Your task to perform on an android device: Go to Wikipedia Image 0: 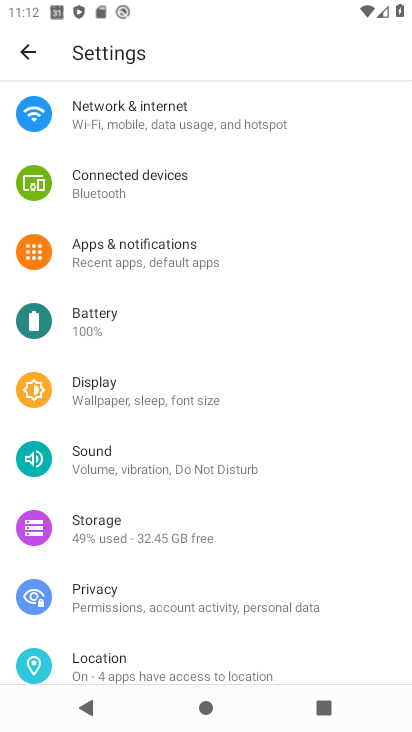
Step 0: press home button
Your task to perform on an android device: Go to Wikipedia Image 1: 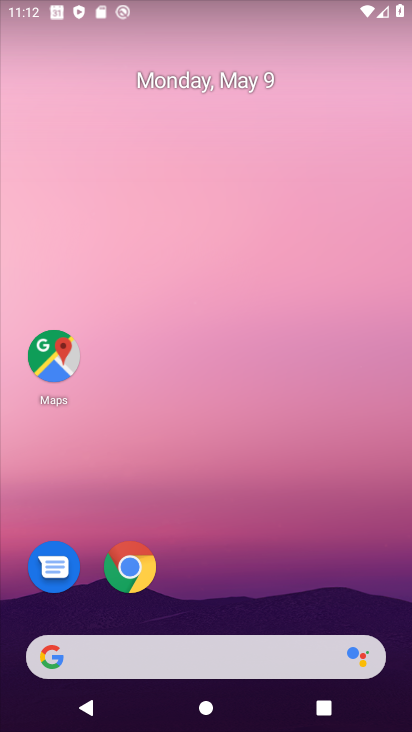
Step 1: click (226, 652)
Your task to perform on an android device: Go to Wikipedia Image 2: 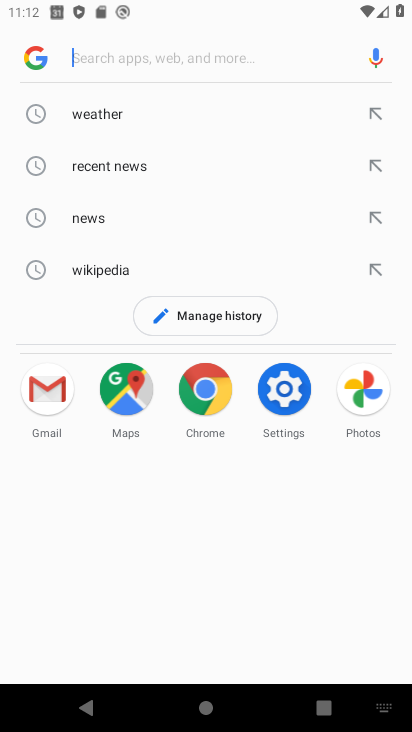
Step 2: click (171, 269)
Your task to perform on an android device: Go to Wikipedia Image 3: 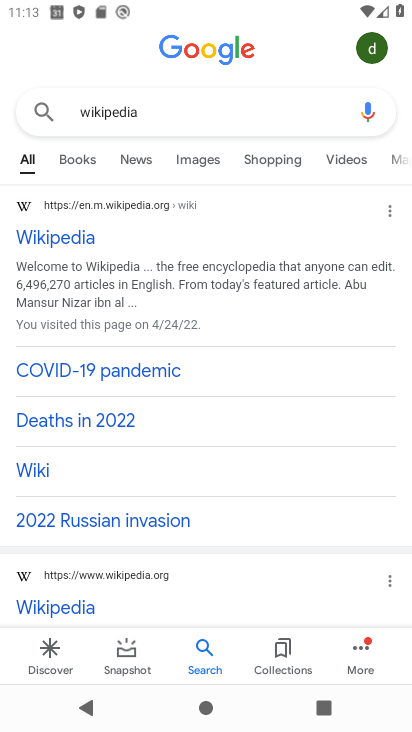
Step 3: click (54, 240)
Your task to perform on an android device: Go to Wikipedia Image 4: 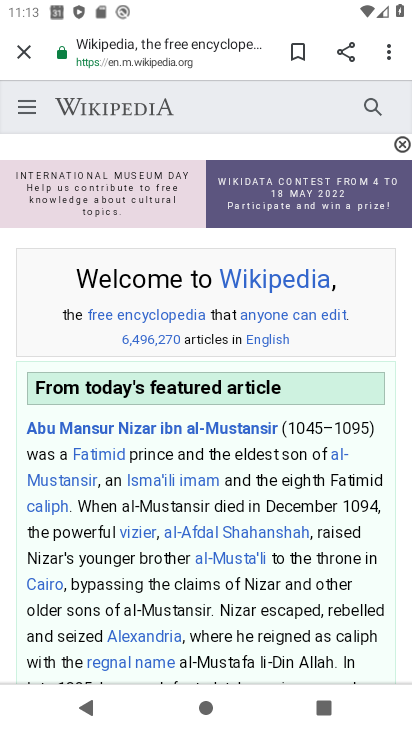
Step 4: task complete